Your task to perform on an android device: Search for bose soundsport free on newegg.com, select the first entry, add it to the cart, then select checkout. Image 0: 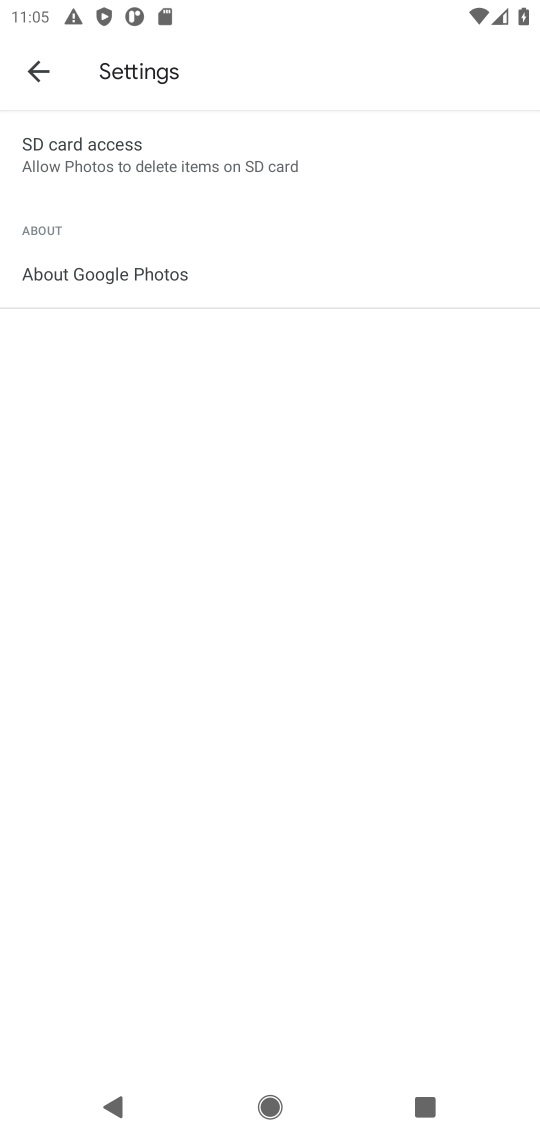
Step 0: press home button
Your task to perform on an android device: Search for bose soundsport free on newegg.com, select the first entry, add it to the cart, then select checkout. Image 1: 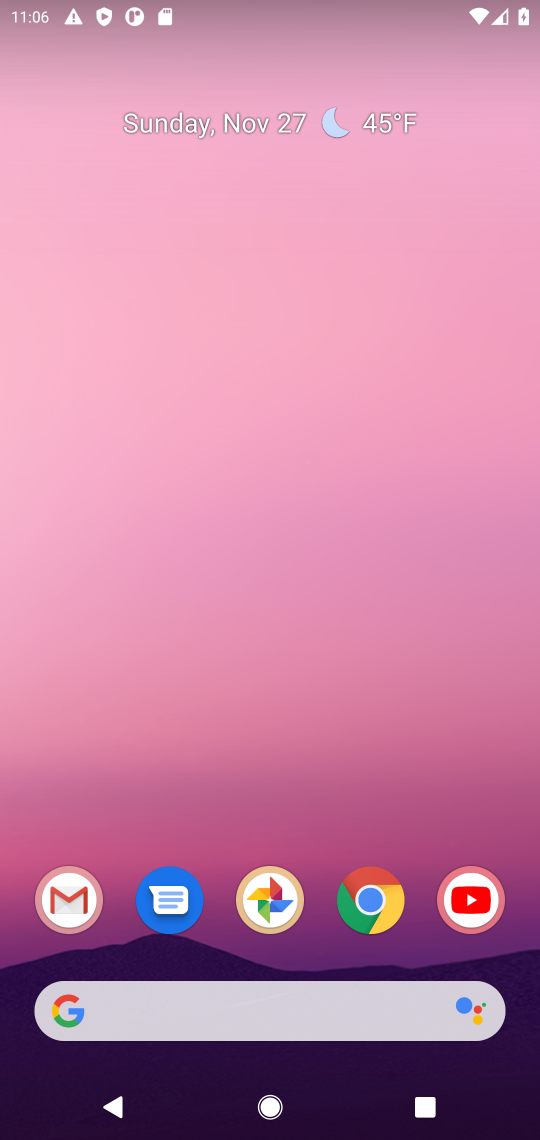
Step 1: click (371, 913)
Your task to perform on an android device: Search for bose soundsport free on newegg.com, select the first entry, add it to the cart, then select checkout. Image 2: 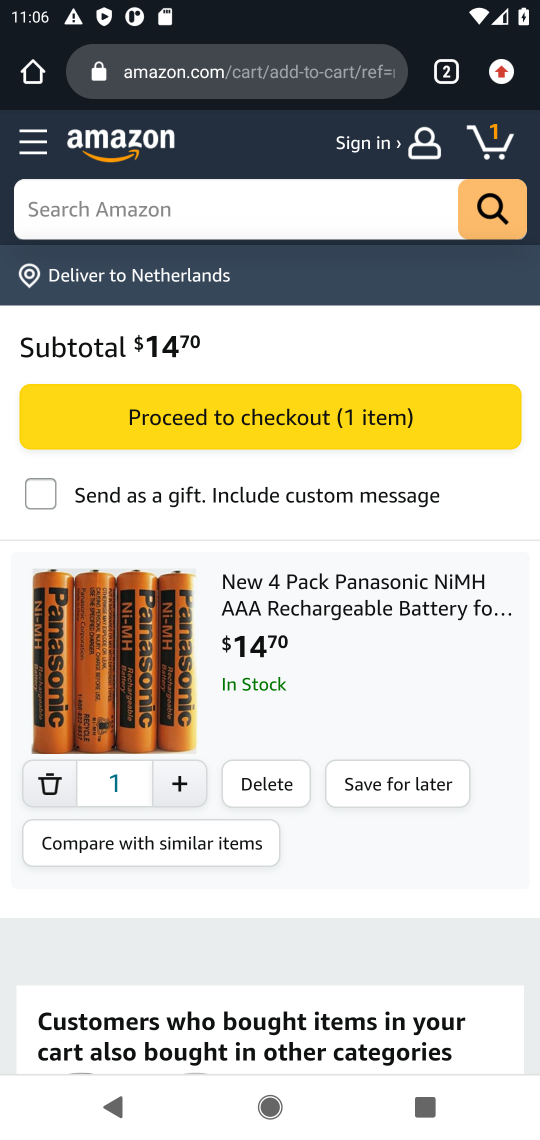
Step 2: click (221, 68)
Your task to perform on an android device: Search for bose soundsport free on newegg.com, select the first entry, add it to the cart, then select checkout. Image 3: 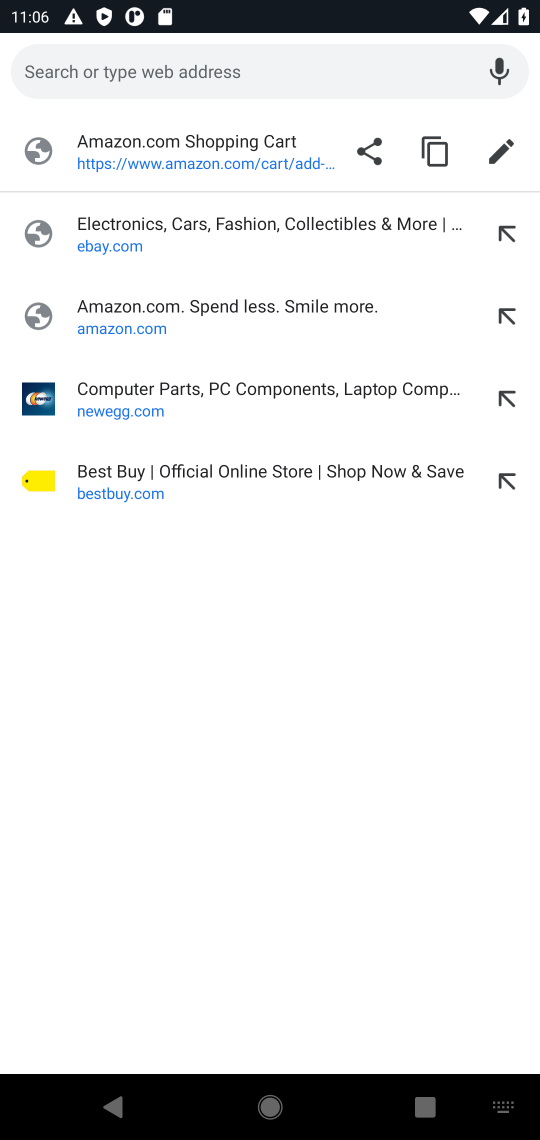
Step 3: click (107, 410)
Your task to perform on an android device: Search for bose soundsport free on newegg.com, select the first entry, add it to the cart, then select checkout. Image 4: 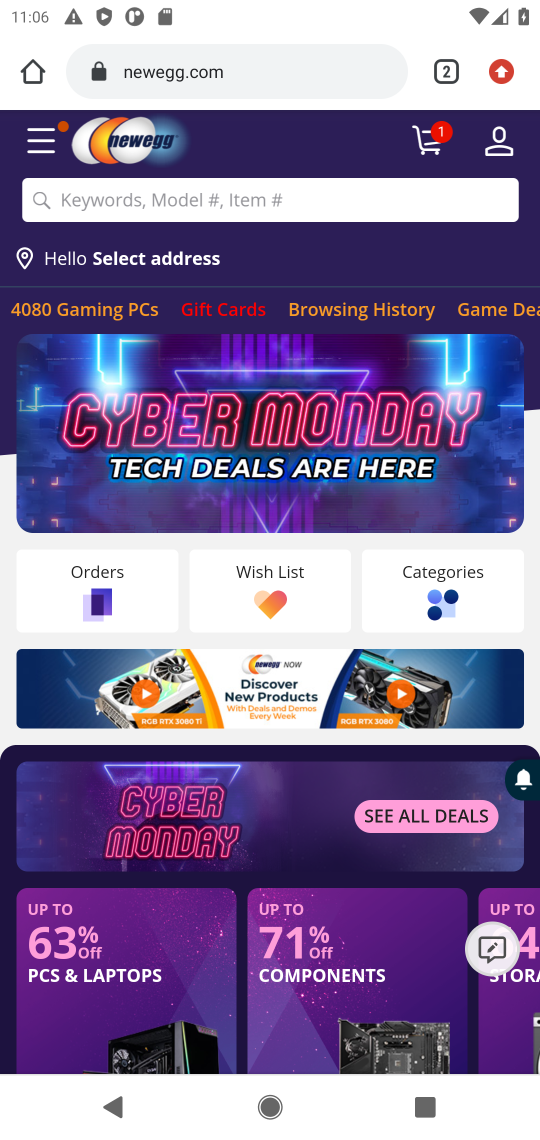
Step 4: click (192, 195)
Your task to perform on an android device: Search for bose soundsport free on newegg.com, select the first entry, add it to the cart, then select checkout. Image 5: 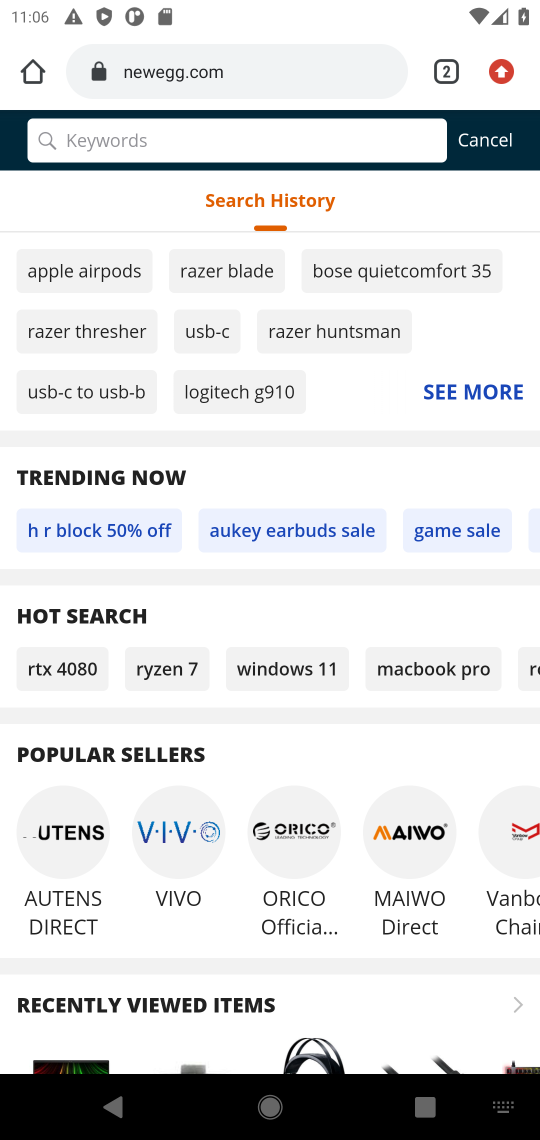
Step 5: type "bose soundsport free "
Your task to perform on an android device: Search for bose soundsport free on newegg.com, select the first entry, add it to the cart, then select checkout. Image 6: 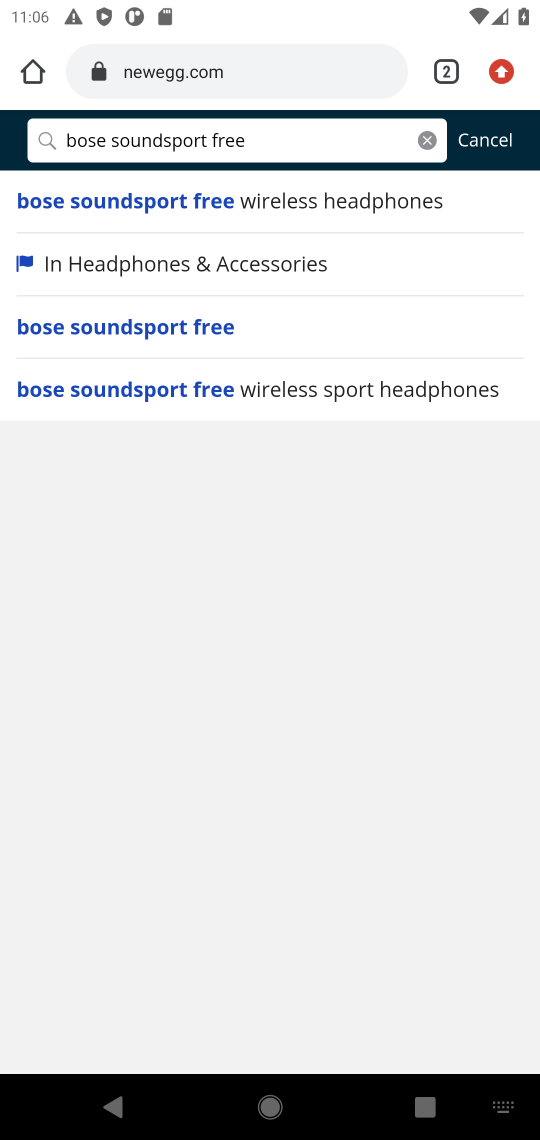
Step 6: click (102, 326)
Your task to perform on an android device: Search for bose soundsport free on newegg.com, select the first entry, add it to the cart, then select checkout. Image 7: 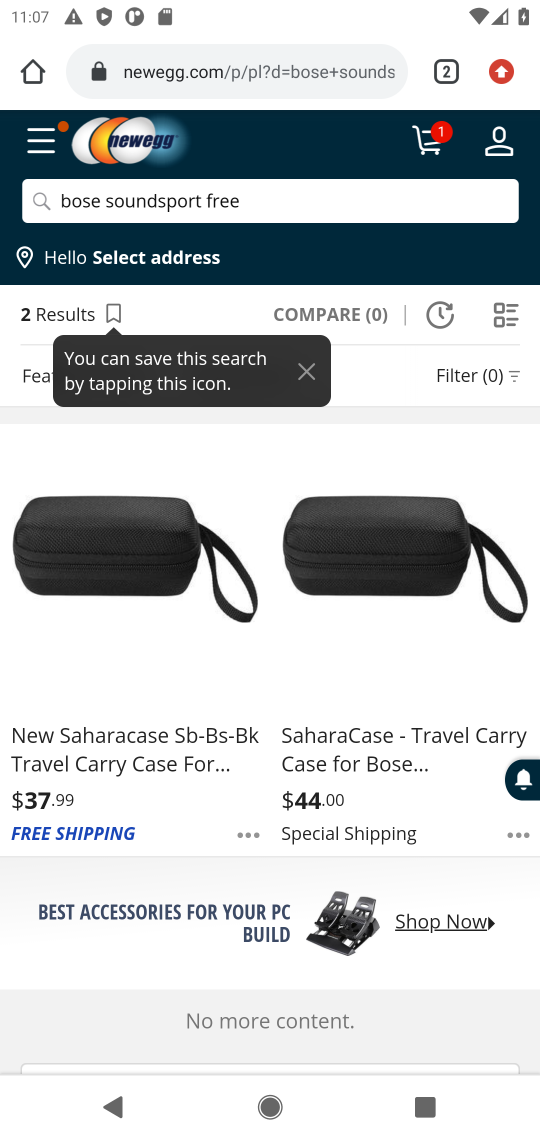
Step 7: task complete